Your task to perform on an android device: Search for sushi restaurants on Maps Image 0: 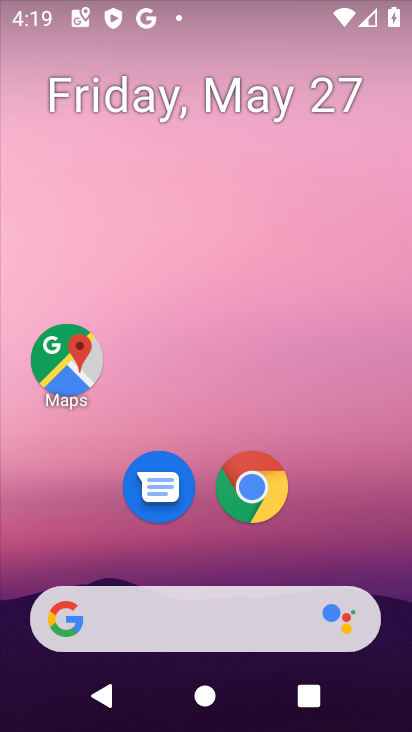
Step 0: drag from (349, 521) to (348, 8)
Your task to perform on an android device: Search for sushi restaurants on Maps Image 1: 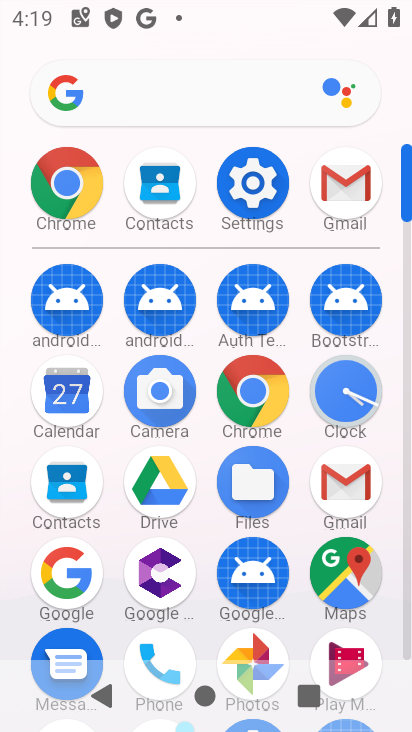
Step 1: click (353, 581)
Your task to perform on an android device: Search for sushi restaurants on Maps Image 2: 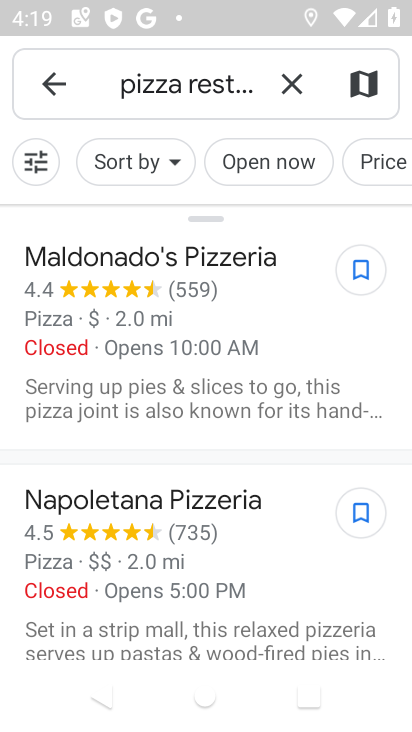
Step 2: click (177, 87)
Your task to perform on an android device: Search for sushi restaurants on Maps Image 3: 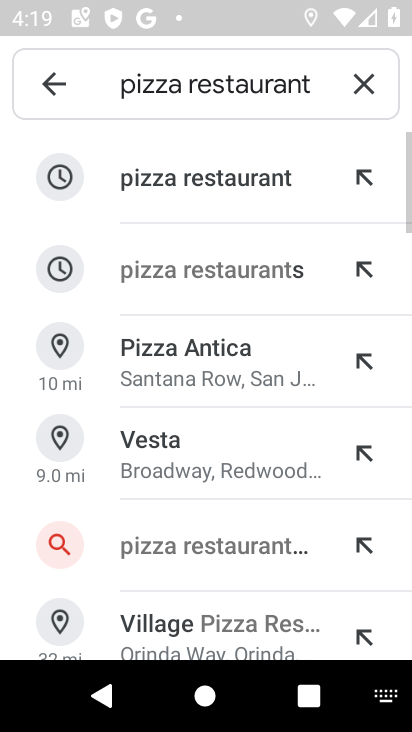
Step 3: click (370, 87)
Your task to perform on an android device: Search for sushi restaurants on Maps Image 4: 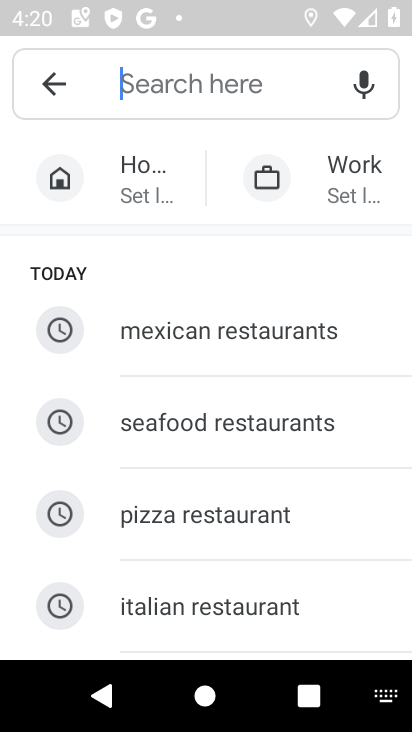
Step 4: drag from (230, 578) to (314, 41)
Your task to perform on an android device: Search for sushi restaurants on Maps Image 5: 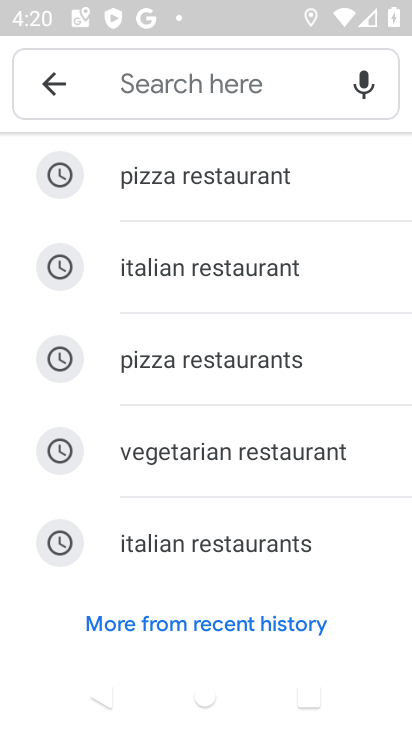
Step 5: click (148, 89)
Your task to perform on an android device: Search for sushi restaurants on Maps Image 6: 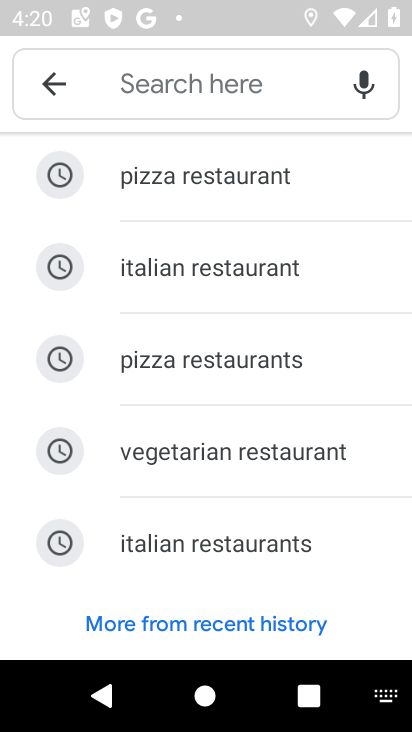
Step 6: type "sushi restaurants"
Your task to perform on an android device: Search for sushi restaurants on Maps Image 7: 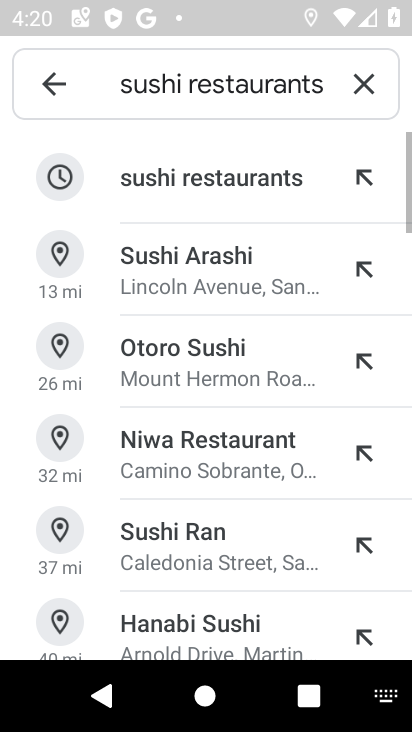
Step 7: click (256, 184)
Your task to perform on an android device: Search for sushi restaurants on Maps Image 8: 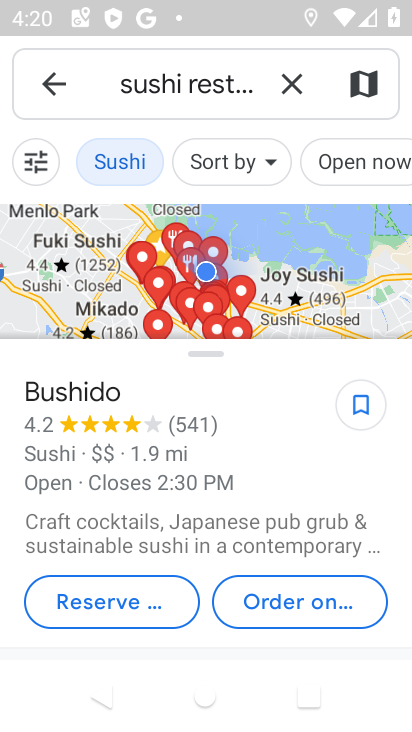
Step 8: task complete